Your task to perform on an android device: open app "Messages" Image 0: 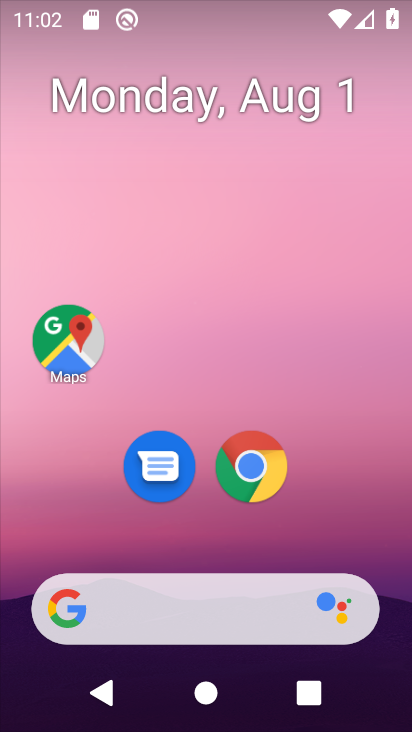
Step 0: drag from (230, 726) to (211, 63)
Your task to perform on an android device: open app "Messages" Image 1: 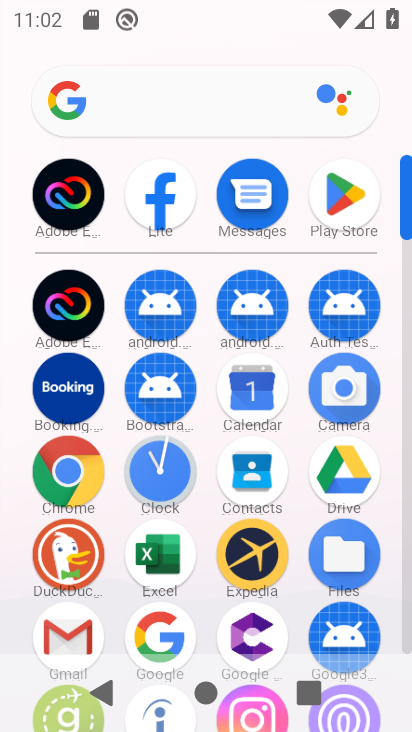
Step 1: drag from (223, 634) to (224, 376)
Your task to perform on an android device: open app "Messages" Image 2: 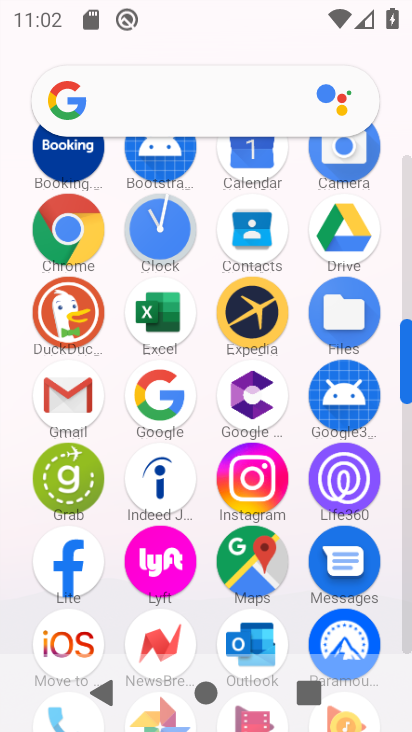
Step 2: drag from (213, 593) to (212, 168)
Your task to perform on an android device: open app "Messages" Image 3: 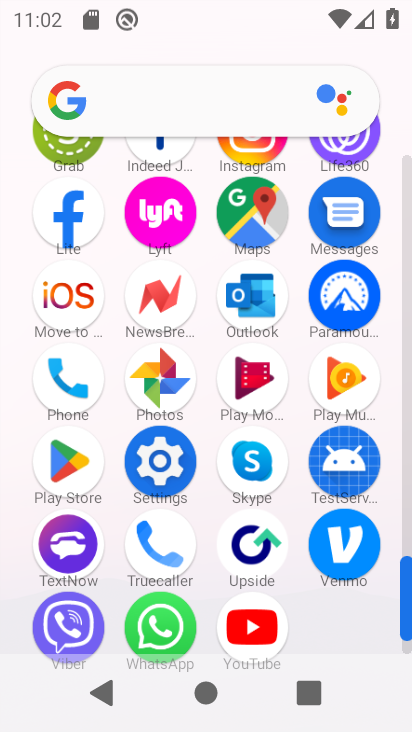
Step 3: click (343, 209)
Your task to perform on an android device: open app "Messages" Image 4: 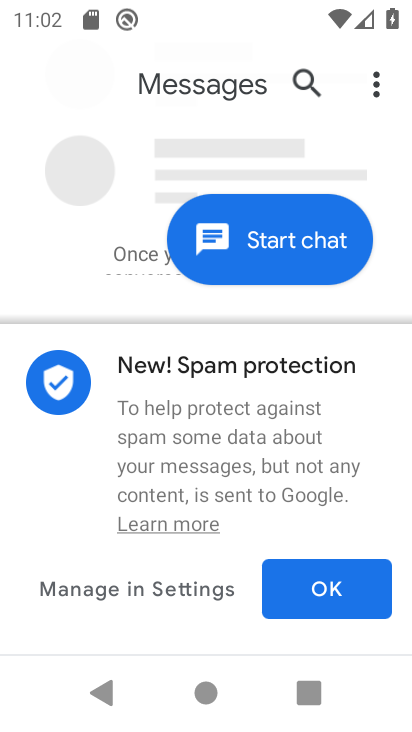
Step 4: task complete